Your task to perform on an android device: Open Google Maps and go to "Timeline" Image 0: 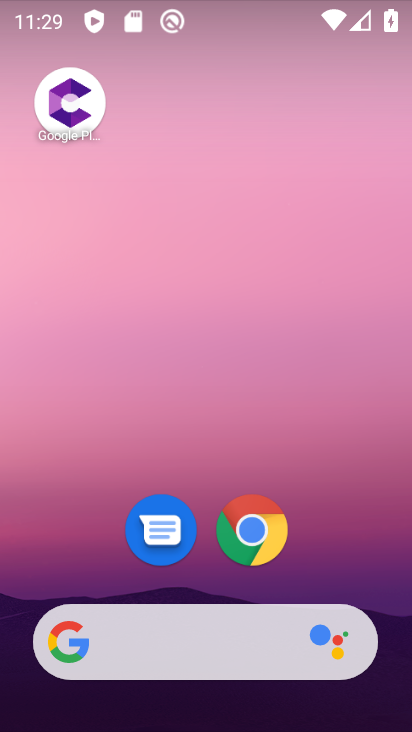
Step 0: drag from (201, 575) to (179, 280)
Your task to perform on an android device: Open Google Maps and go to "Timeline" Image 1: 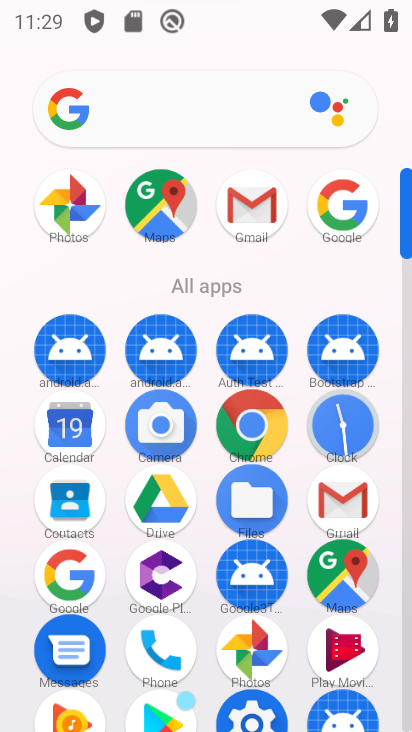
Step 1: click (346, 565)
Your task to perform on an android device: Open Google Maps and go to "Timeline" Image 2: 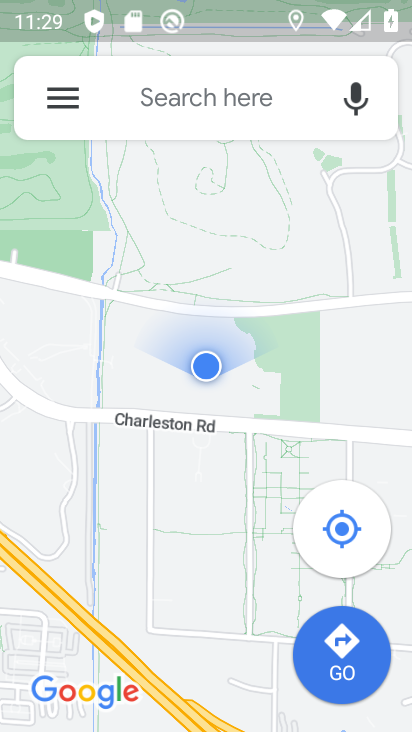
Step 2: click (54, 104)
Your task to perform on an android device: Open Google Maps and go to "Timeline" Image 3: 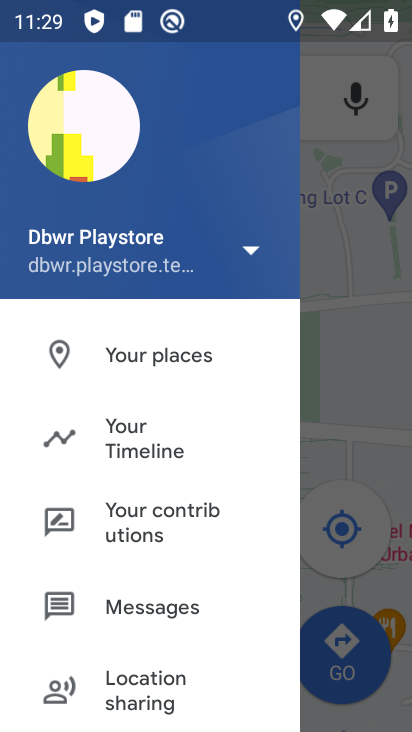
Step 3: click (136, 457)
Your task to perform on an android device: Open Google Maps and go to "Timeline" Image 4: 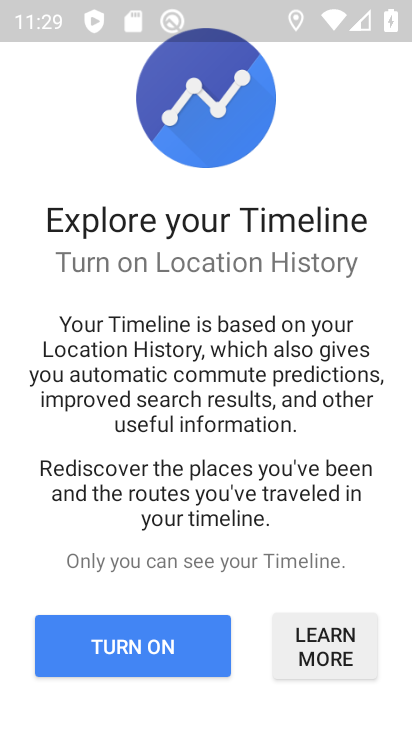
Step 4: click (187, 642)
Your task to perform on an android device: Open Google Maps and go to "Timeline" Image 5: 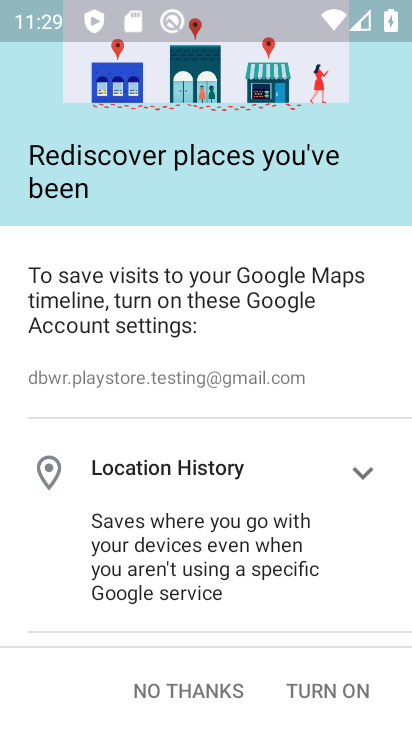
Step 5: click (293, 683)
Your task to perform on an android device: Open Google Maps and go to "Timeline" Image 6: 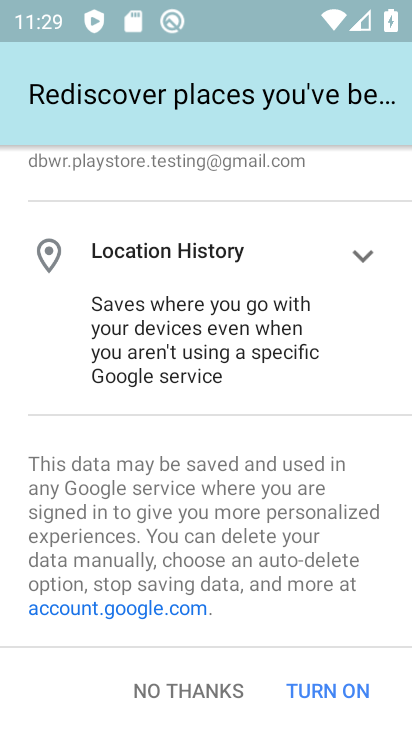
Step 6: click (293, 683)
Your task to perform on an android device: Open Google Maps and go to "Timeline" Image 7: 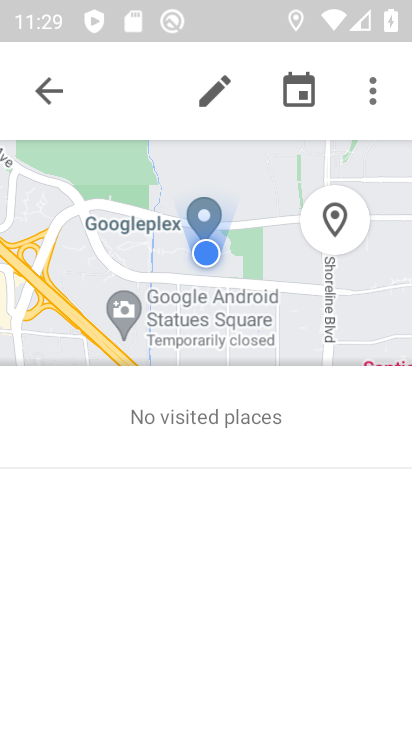
Step 7: task complete